Your task to perform on an android device: turn on showing notifications on the lock screen Image 0: 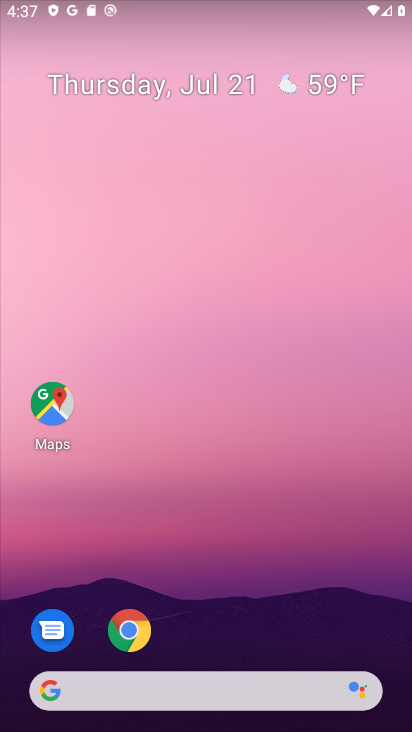
Step 0: drag from (161, 659) to (161, 295)
Your task to perform on an android device: turn on showing notifications on the lock screen Image 1: 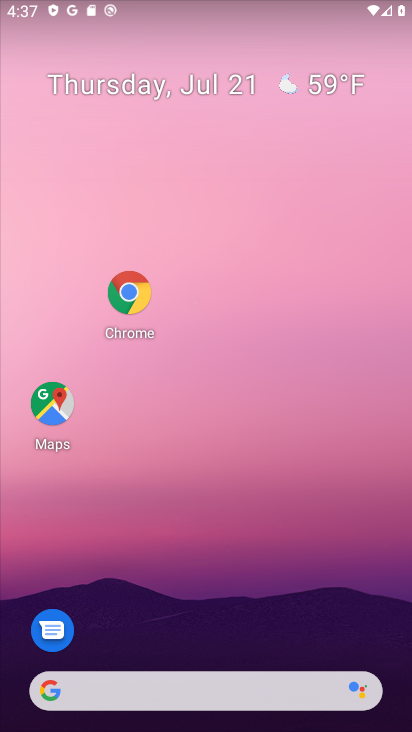
Step 1: drag from (243, 525) to (254, 123)
Your task to perform on an android device: turn on showing notifications on the lock screen Image 2: 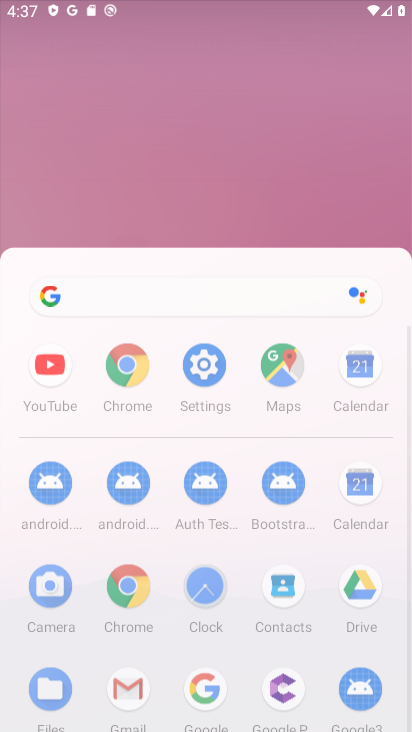
Step 2: drag from (214, 491) to (223, 200)
Your task to perform on an android device: turn on showing notifications on the lock screen Image 3: 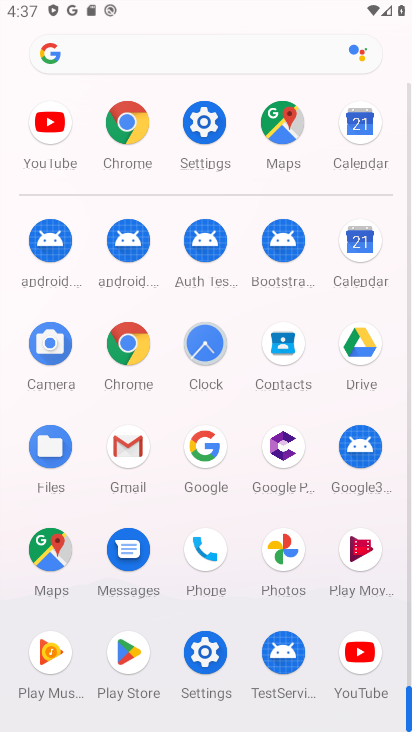
Step 3: click (191, 140)
Your task to perform on an android device: turn on showing notifications on the lock screen Image 4: 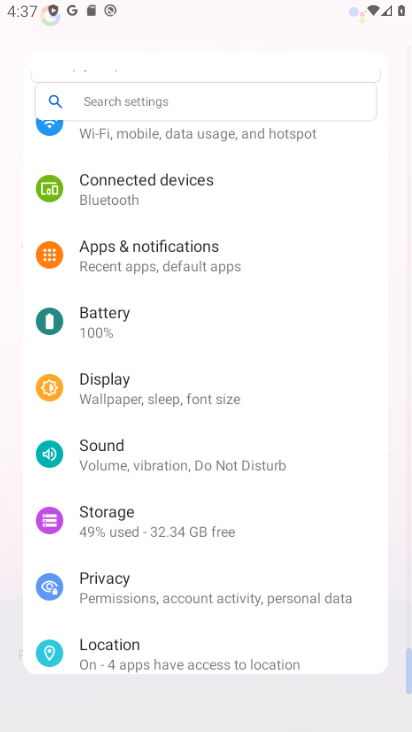
Step 4: click (194, 137)
Your task to perform on an android device: turn on showing notifications on the lock screen Image 5: 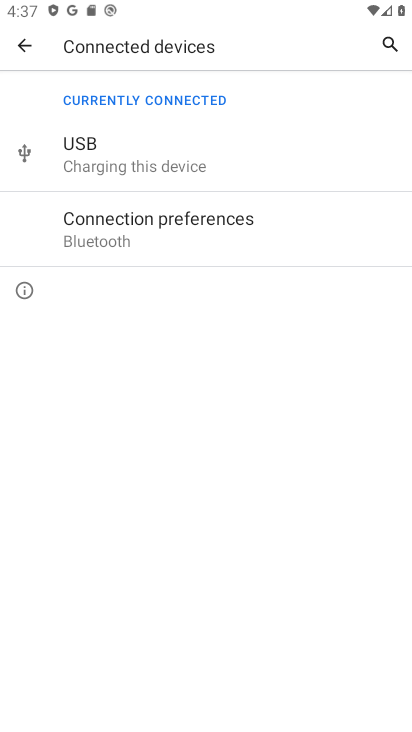
Step 5: click (31, 30)
Your task to perform on an android device: turn on showing notifications on the lock screen Image 6: 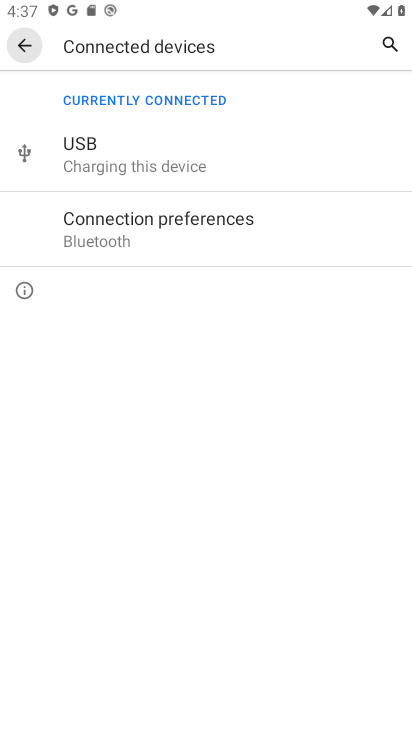
Step 6: click (30, 39)
Your task to perform on an android device: turn on showing notifications on the lock screen Image 7: 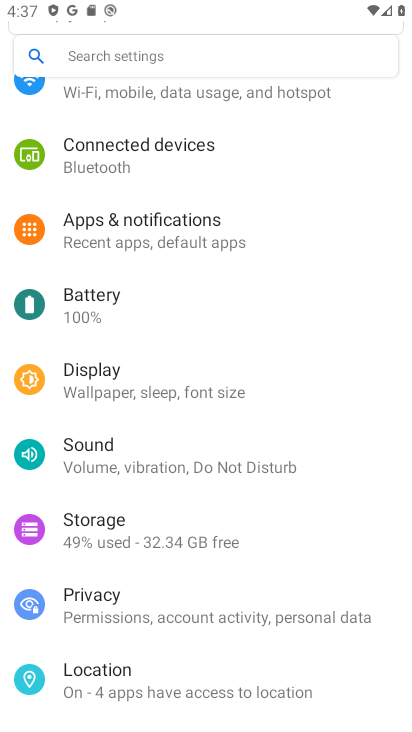
Step 7: click (128, 232)
Your task to perform on an android device: turn on showing notifications on the lock screen Image 8: 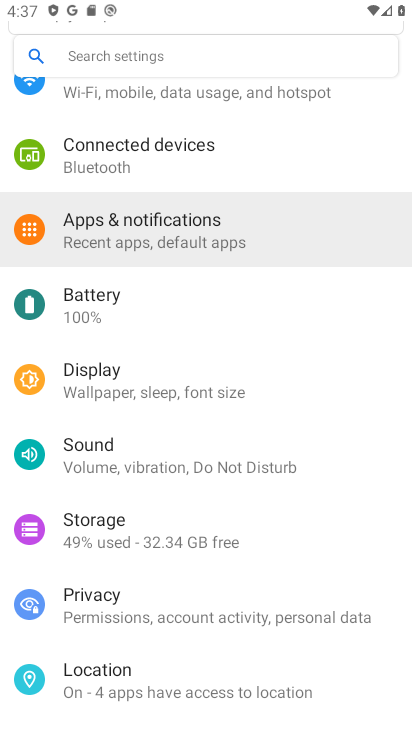
Step 8: click (128, 232)
Your task to perform on an android device: turn on showing notifications on the lock screen Image 9: 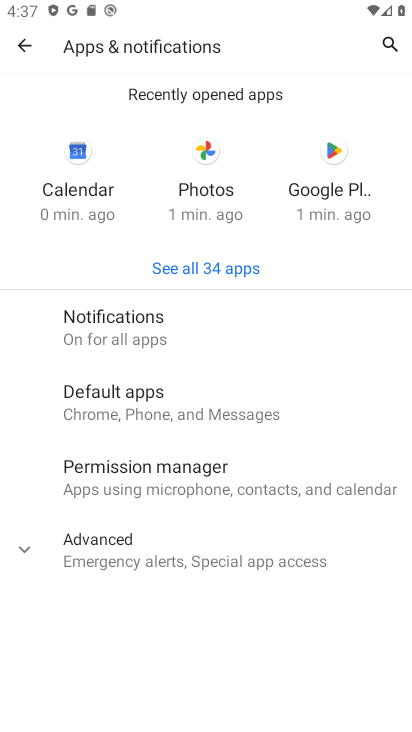
Step 9: click (122, 316)
Your task to perform on an android device: turn on showing notifications on the lock screen Image 10: 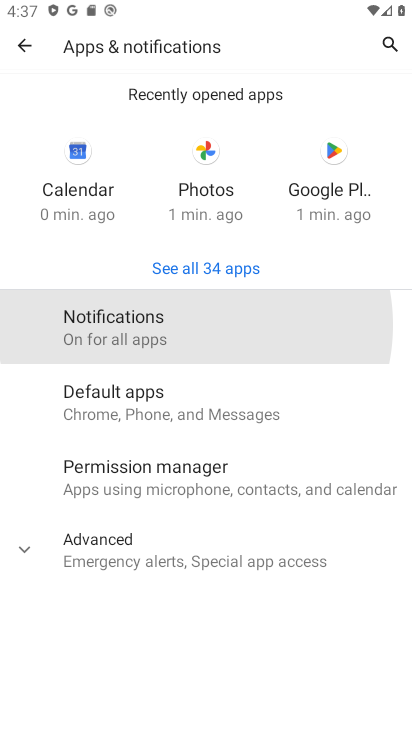
Step 10: click (120, 317)
Your task to perform on an android device: turn on showing notifications on the lock screen Image 11: 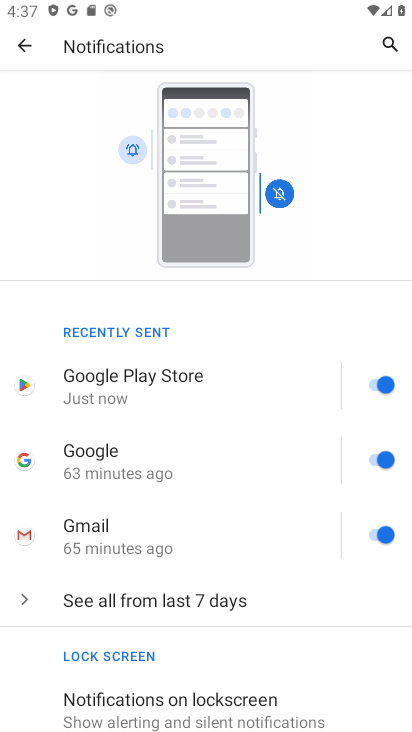
Step 11: drag from (136, 567) to (136, 327)
Your task to perform on an android device: turn on showing notifications on the lock screen Image 12: 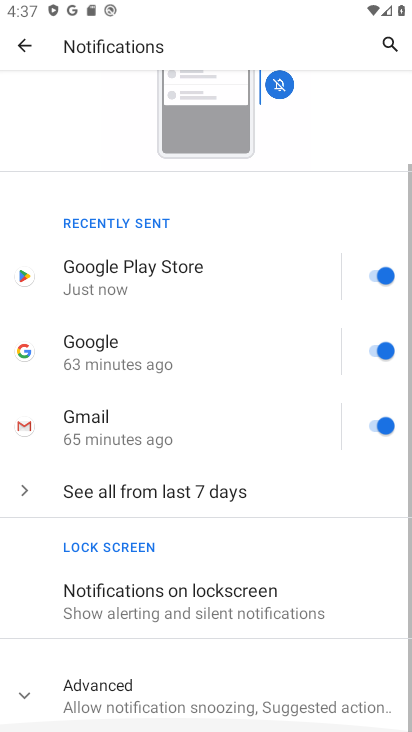
Step 12: drag from (182, 591) to (186, 350)
Your task to perform on an android device: turn on showing notifications on the lock screen Image 13: 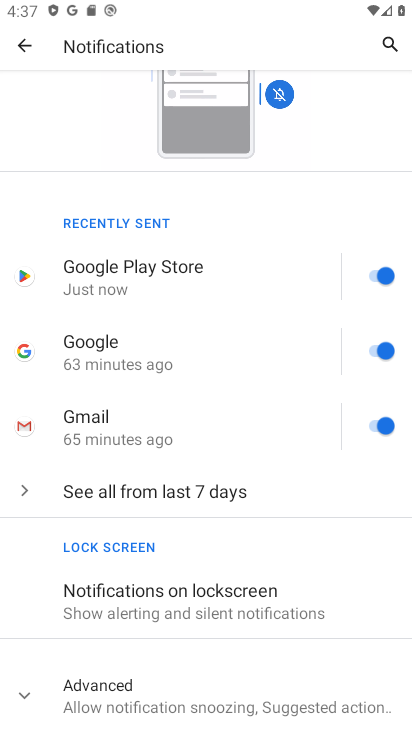
Step 13: click (121, 582)
Your task to perform on an android device: turn on showing notifications on the lock screen Image 14: 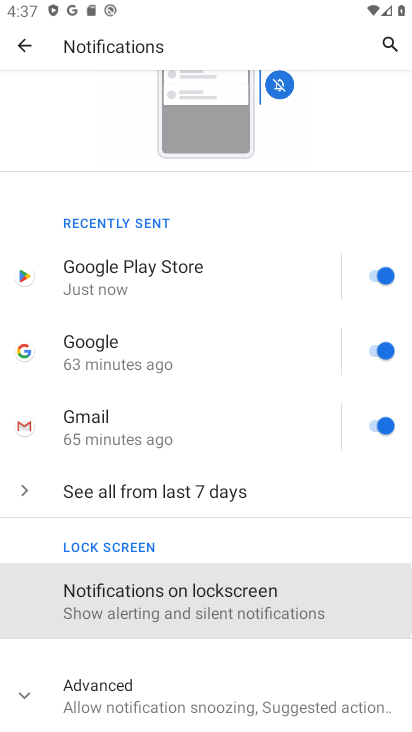
Step 14: click (133, 603)
Your task to perform on an android device: turn on showing notifications on the lock screen Image 15: 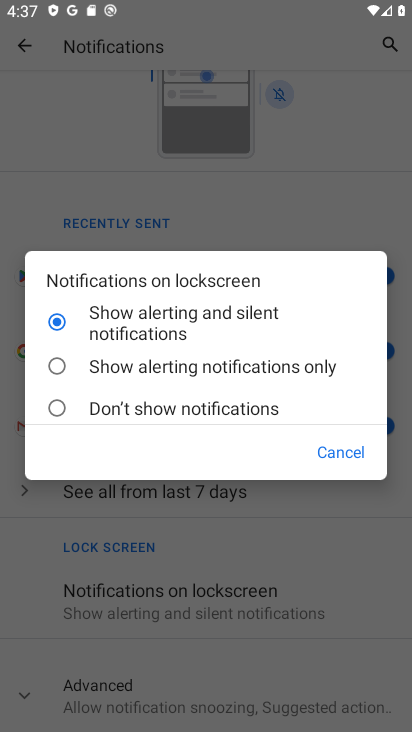
Step 15: click (338, 438)
Your task to perform on an android device: turn on showing notifications on the lock screen Image 16: 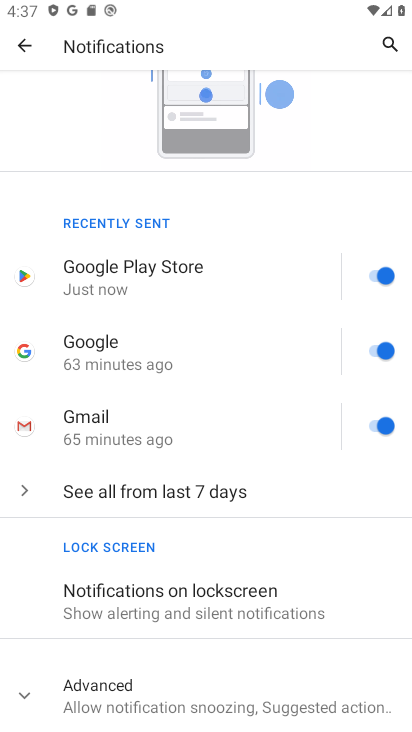
Step 16: task complete